Your task to perform on an android device: Open notification settings Image 0: 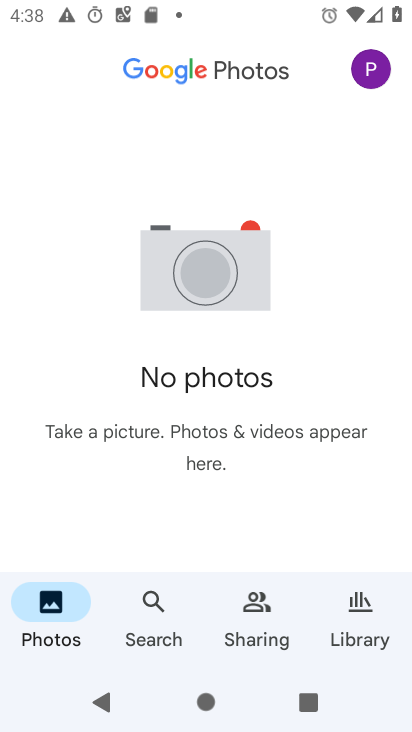
Step 0: press home button
Your task to perform on an android device: Open notification settings Image 1: 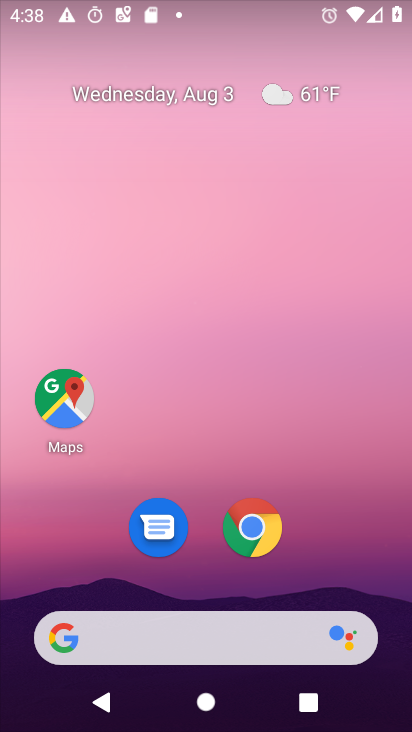
Step 1: drag from (346, 502) to (305, 9)
Your task to perform on an android device: Open notification settings Image 2: 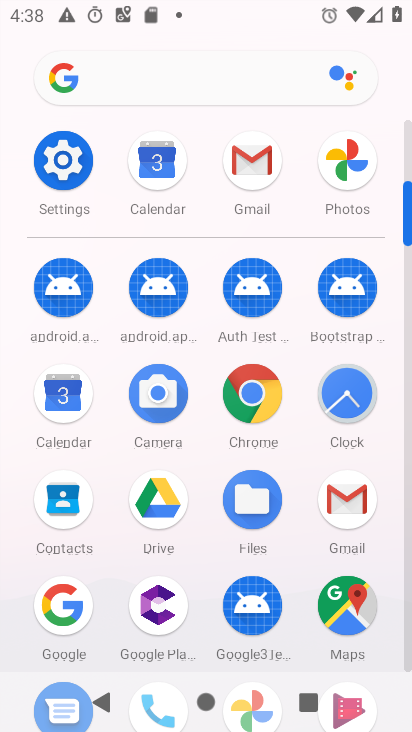
Step 2: click (77, 156)
Your task to perform on an android device: Open notification settings Image 3: 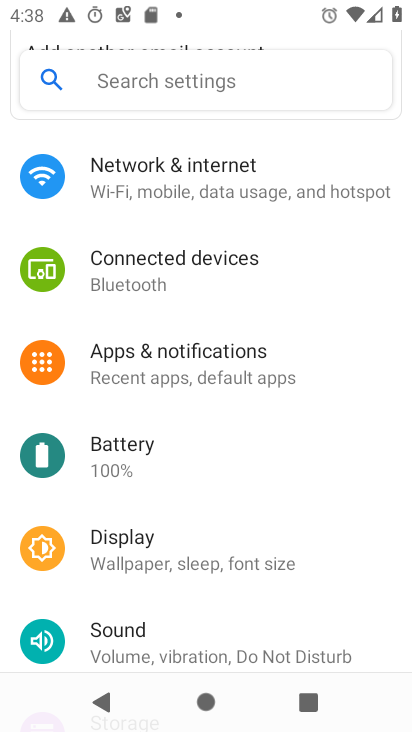
Step 3: click (182, 373)
Your task to perform on an android device: Open notification settings Image 4: 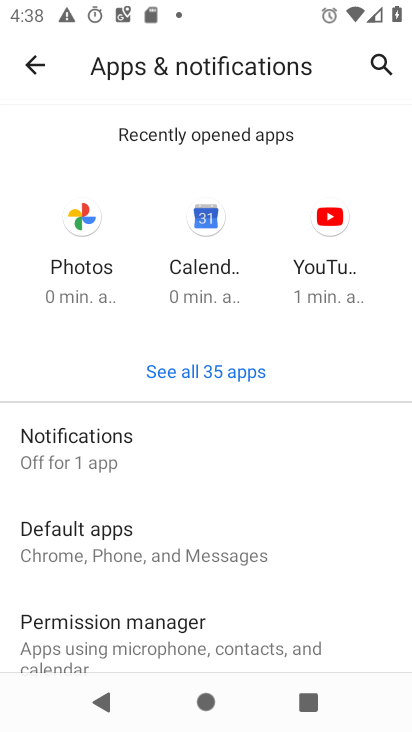
Step 4: click (171, 437)
Your task to perform on an android device: Open notification settings Image 5: 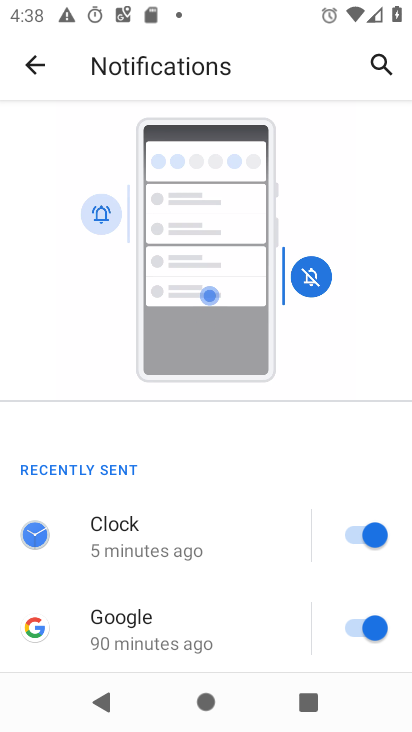
Step 5: task complete